Your task to perform on an android device: search for starred emails in the gmail app Image 0: 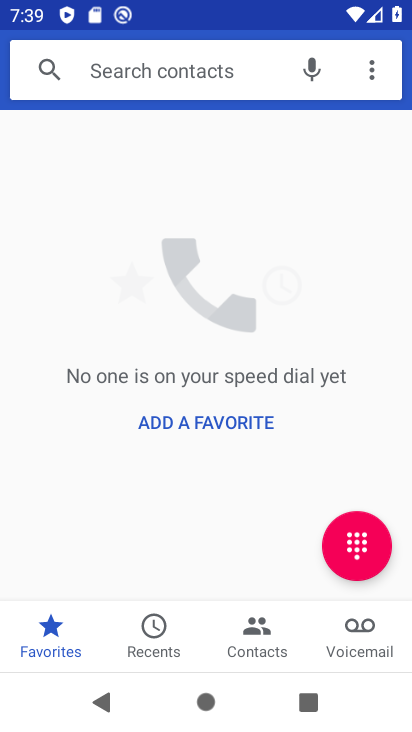
Step 0: press home button
Your task to perform on an android device: search for starred emails in the gmail app Image 1: 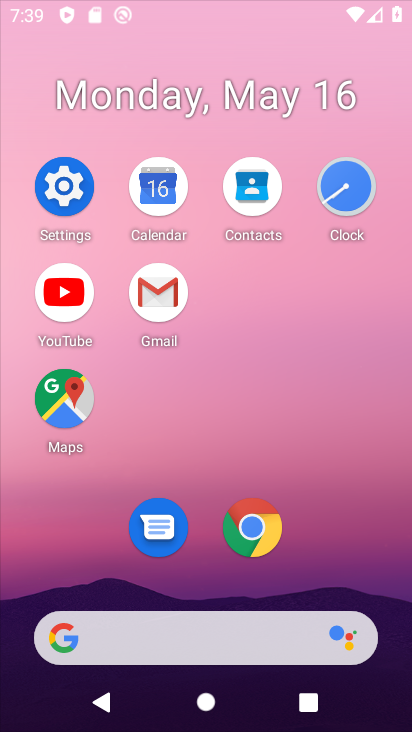
Step 1: press home button
Your task to perform on an android device: search for starred emails in the gmail app Image 2: 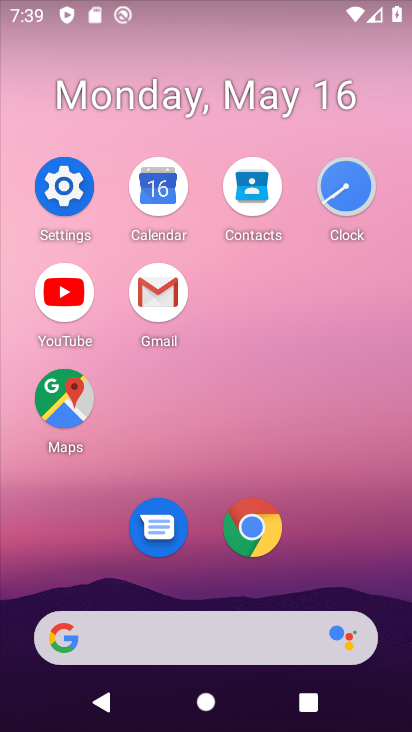
Step 2: click (162, 312)
Your task to perform on an android device: search for starred emails in the gmail app Image 3: 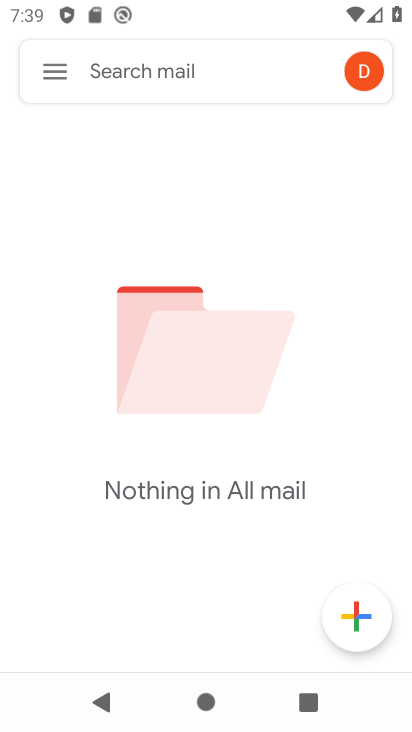
Step 3: click (60, 82)
Your task to perform on an android device: search for starred emails in the gmail app Image 4: 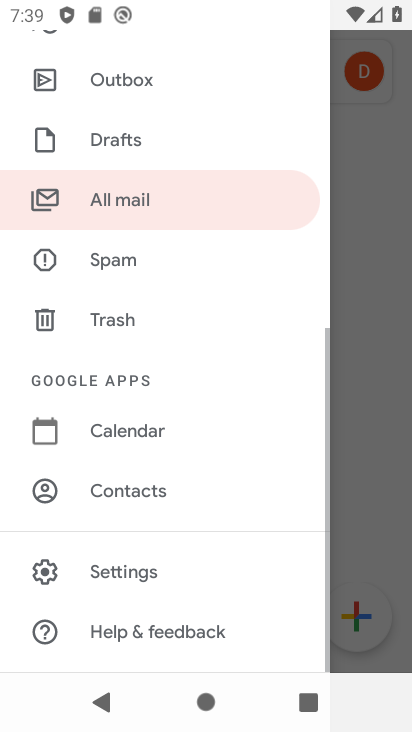
Step 4: drag from (181, 113) to (160, 522)
Your task to perform on an android device: search for starred emails in the gmail app Image 5: 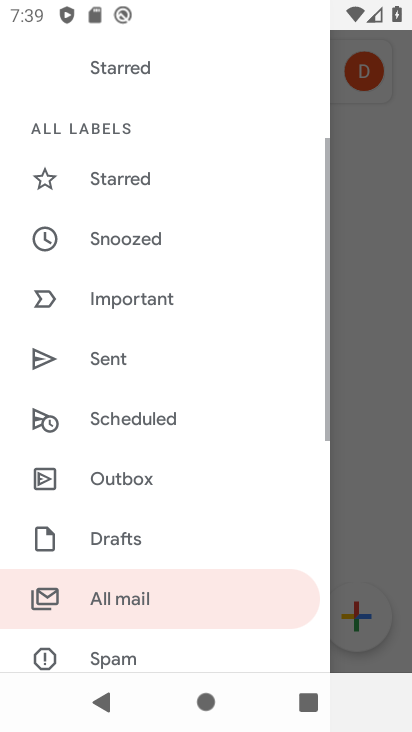
Step 5: click (156, 166)
Your task to perform on an android device: search for starred emails in the gmail app Image 6: 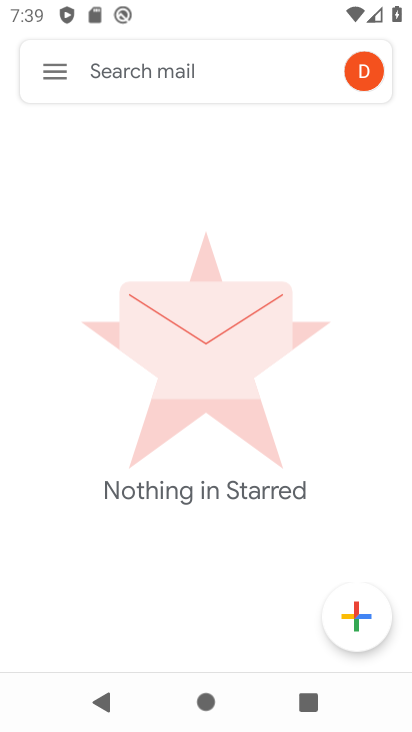
Step 6: task complete